Your task to perform on an android device: Open location settings Image 0: 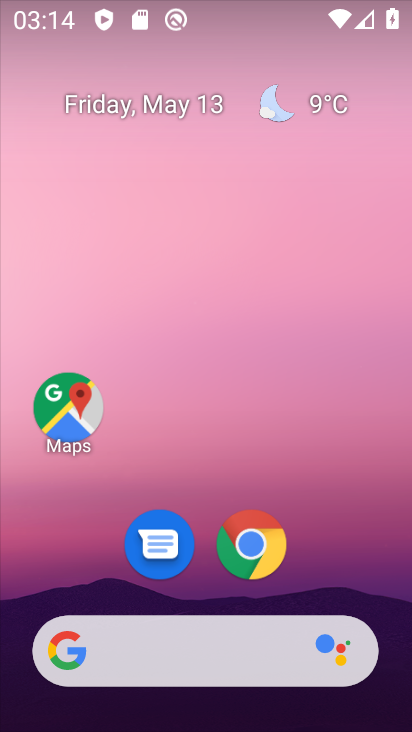
Step 0: drag from (321, 561) to (251, 51)
Your task to perform on an android device: Open location settings Image 1: 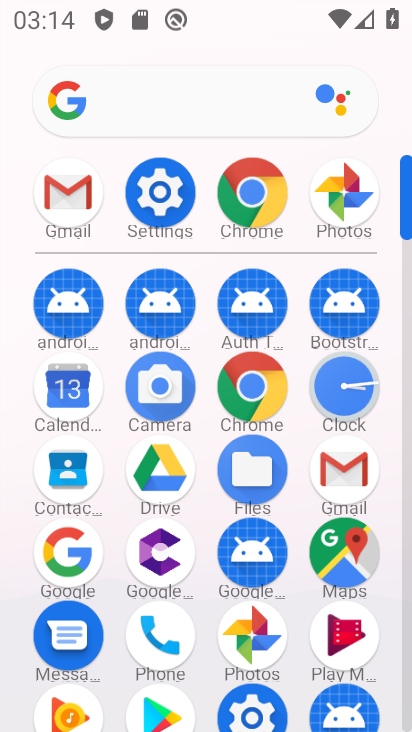
Step 1: drag from (19, 587) to (31, 347)
Your task to perform on an android device: Open location settings Image 2: 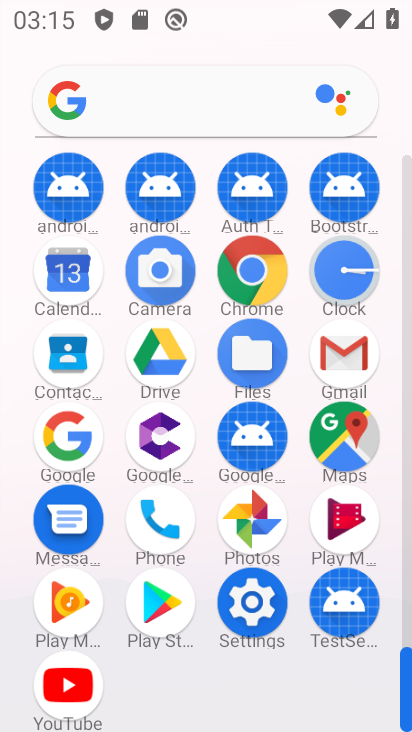
Step 2: click (250, 600)
Your task to perform on an android device: Open location settings Image 3: 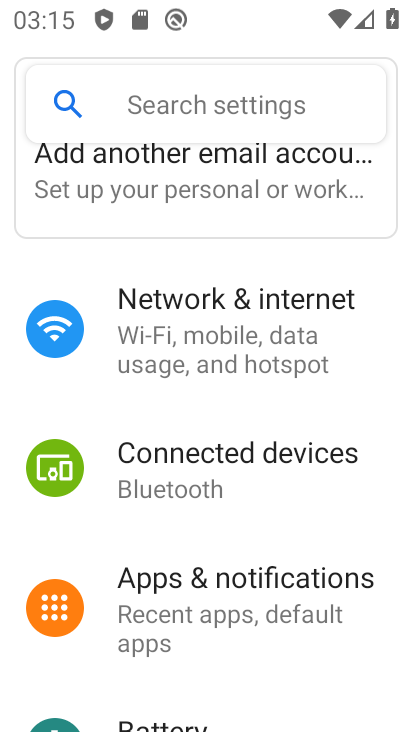
Step 3: drag from (309, 554) to (296, 276)
Your task to perform on an android device: Open location settings Image 4: 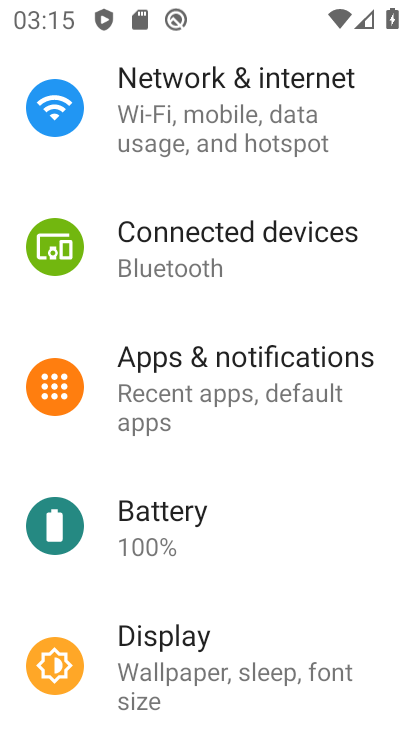
Step 4: drag from (319, 575) to (299, 225)
Your task to perform on an android device: Open location settings Image 5: 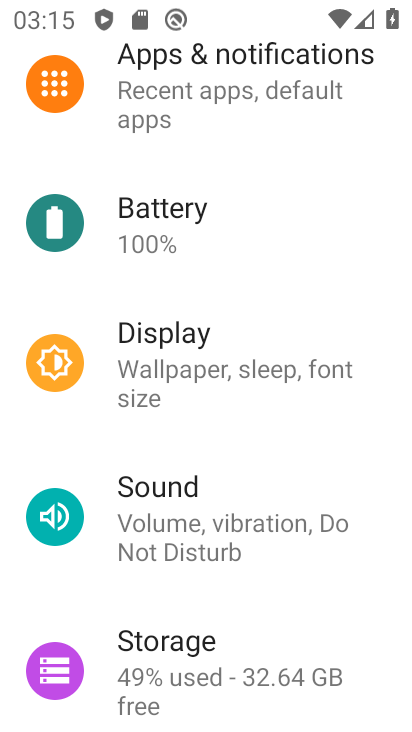
Step 5: drag from (301, 507) to (291, 212)
Your task to perform on an android device: Open location settings Image 6: 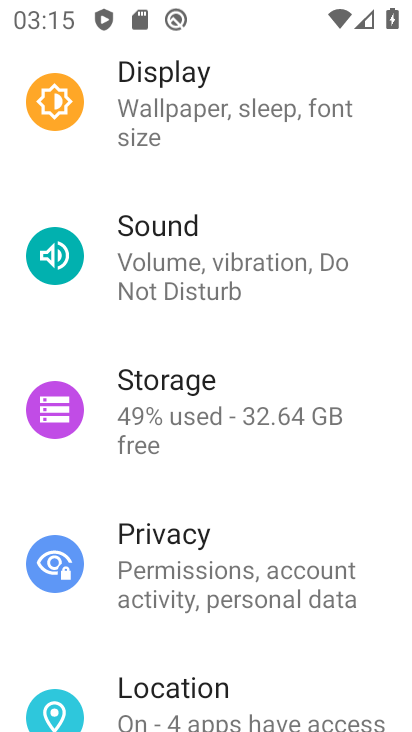
Step 6: click (251, 698)
Your task to perform on an android device: Open location settings Image 7: 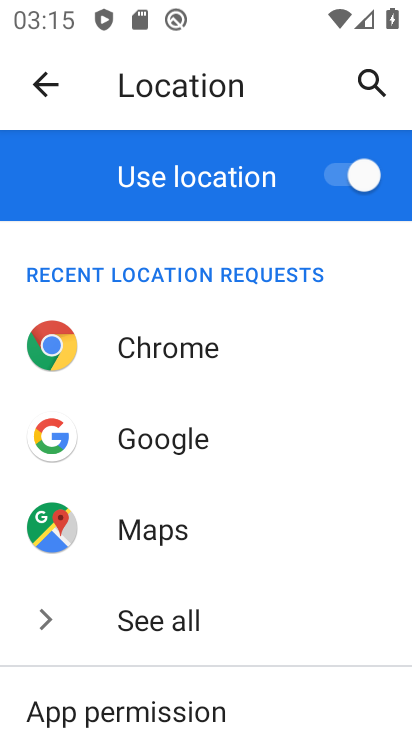
Step 7: drag from (286, 544) to (269, 212)
Your task to perform on an android device: Open location settings Image 8: 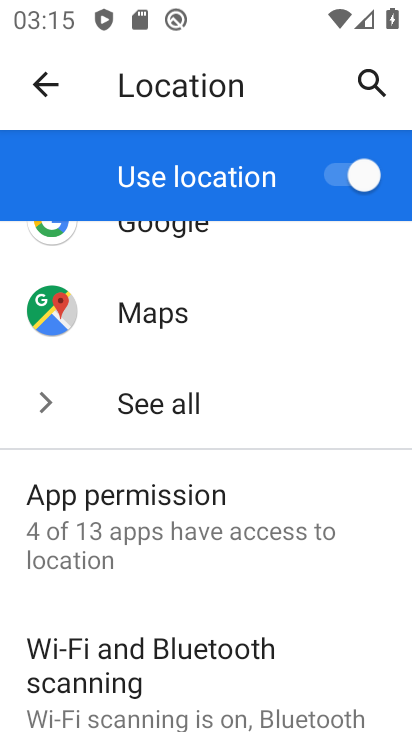
Step 8: drag from (243, 528) to (272, 242)
Your task to perform on an android device: Open location settings Image 9: 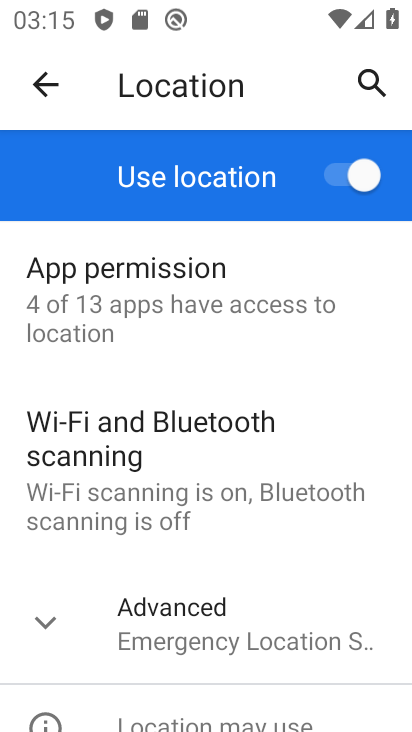
Step 9: drag from (304, 570) to (251, 222)
Your task to perform on an android device: Open location settings Image 10: 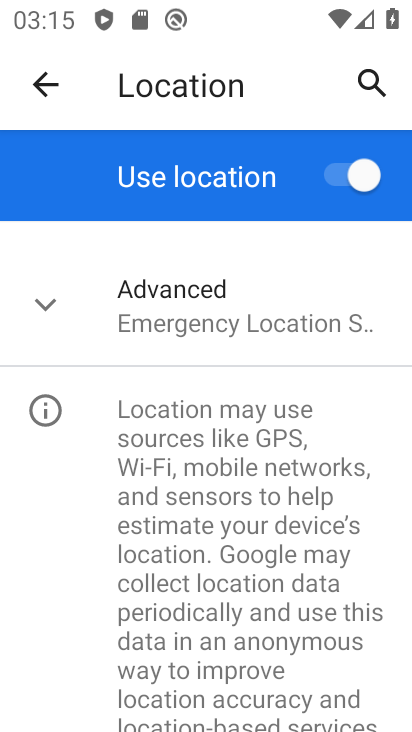
Step 10: click (34, 297)
Your task to perform on an android device: Open location settings Image 11: 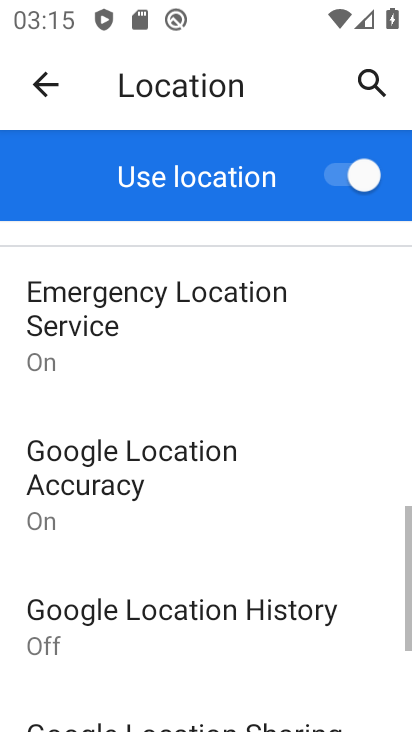
Step 11: task complete